Your task to perform on an android device: change the clock display to show seconds Image 0: 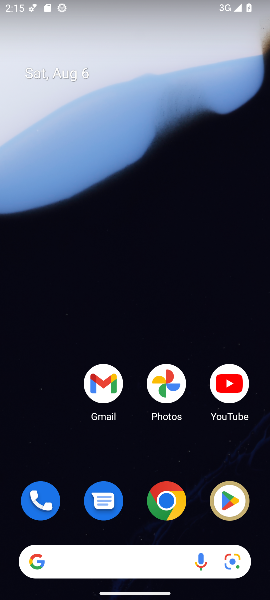
Step 0: press home button
Your task to perform on an android device: change the clock display to show seconds Image 1: 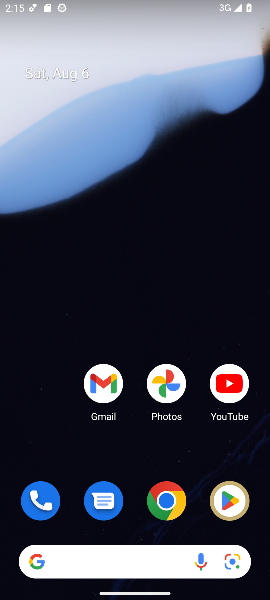
Step 1: drag from (139, 498) to (172, 227)
Your task to perform on an android device: change the clock display to show seconds Image 2: 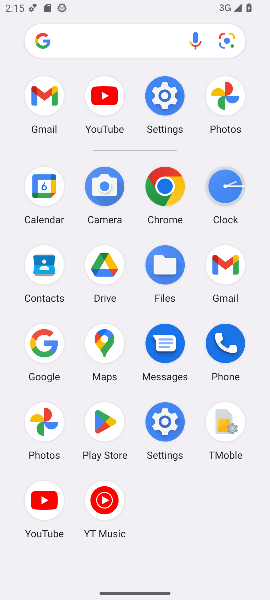
Step 2: click (222, 194)
Your task to perform on an android device: change the clock display to show seconds Image 3: 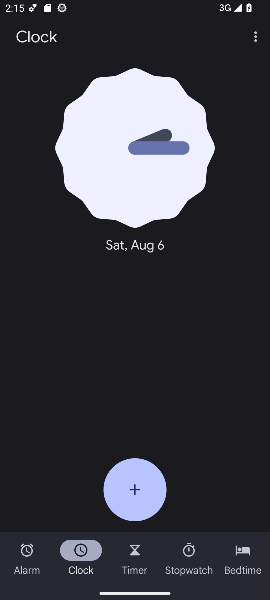
Step 3: click (255, 39)
Your task to perform on an android device: change the clock display to show seconds Image 4: 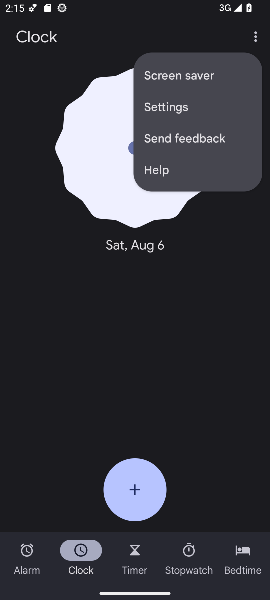
Step 4: click (180, 101)
Your task to perform on an android device: change the clock display to show seconds Image 5: 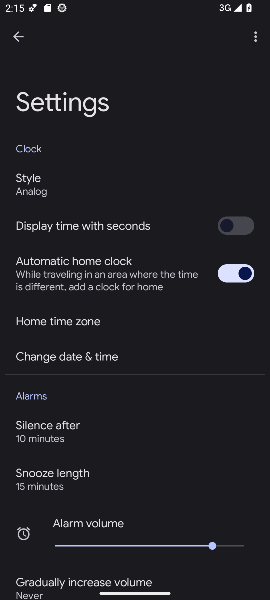
Step 5: click (229, 226)
Your task to perform on an android device: change the clock display to show seconds Image 6: 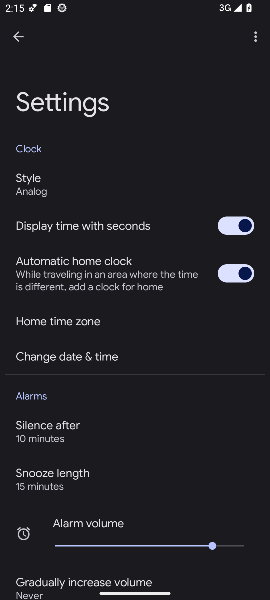
Step 6: task complete